Your task to perform on an android device: open device folders in google photos Image 0: 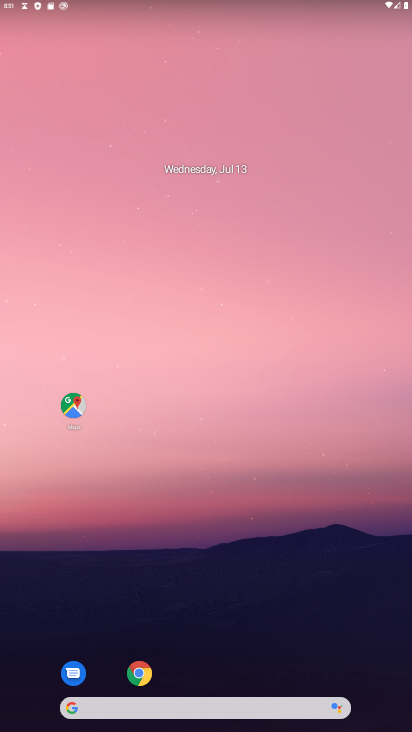
Step 0: drag from (207, 703) to (224, 188)
Your task to perform on an android device: open device folders in google photos Image 1: 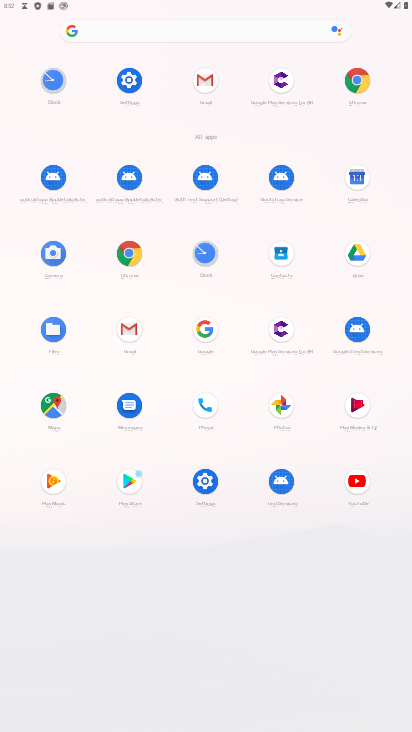
Step 1: click (270, 404)
Your task to perform on an android device: open device folders in google photos Image 2: 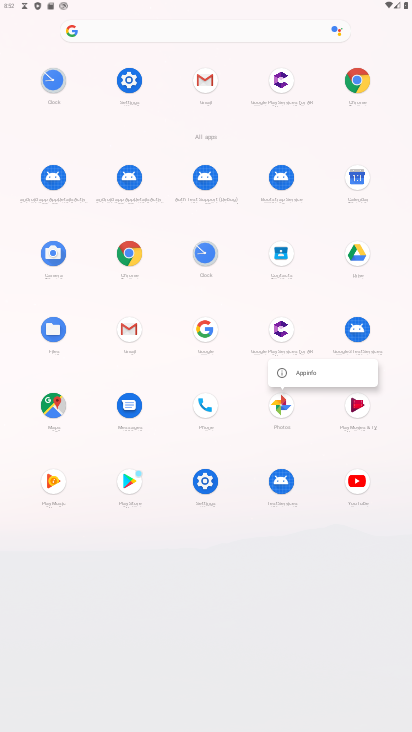
Step 2: click (284, 406)
Your task to perform on an android device: open device folders in google photos Image 3: 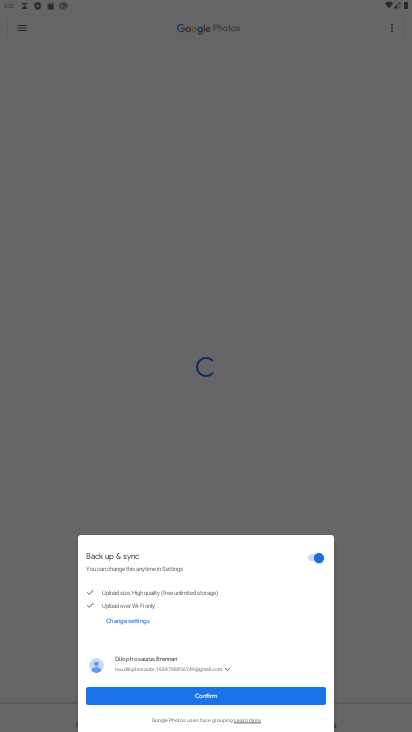
Step 3: click (191, 698)
Your task to perform on an android device: open device folders in google photos Image 4: 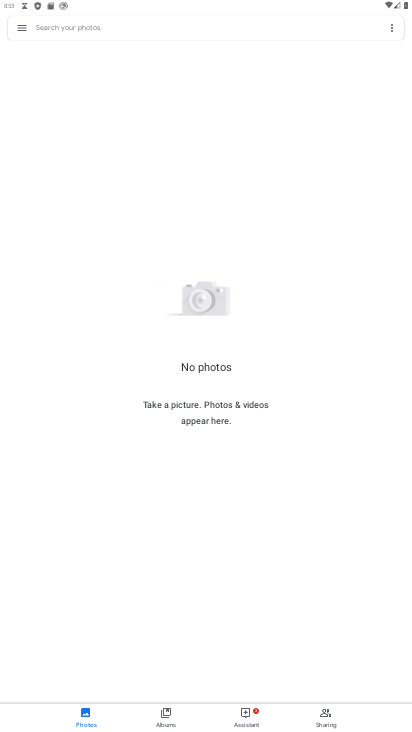
Step 4: click (18, 29)
Your task to perform on an android device: open device folders in google photos Image 5: 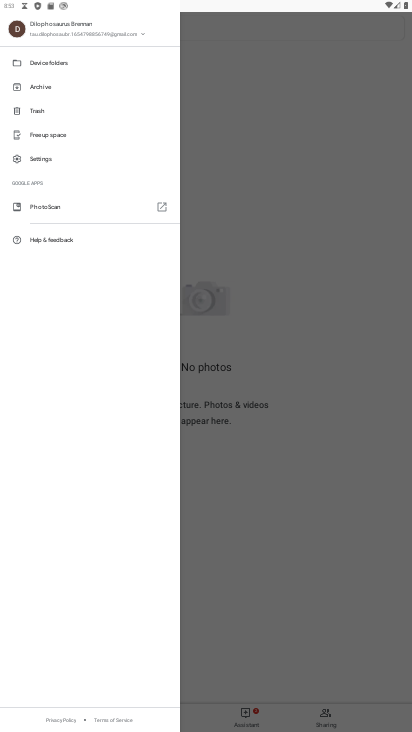
Step 5: click (57, 64)
Your task to perform on an android device: open device folders in google photos Image 6: 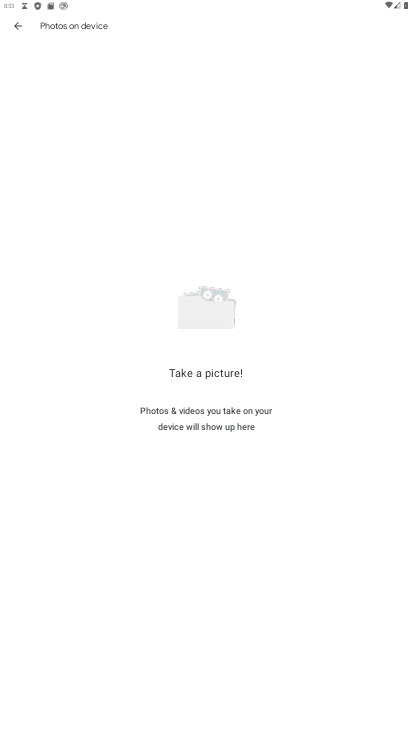
Step 6: task complete